Your task to perform on an android device: change the clock display to analog Image 0: 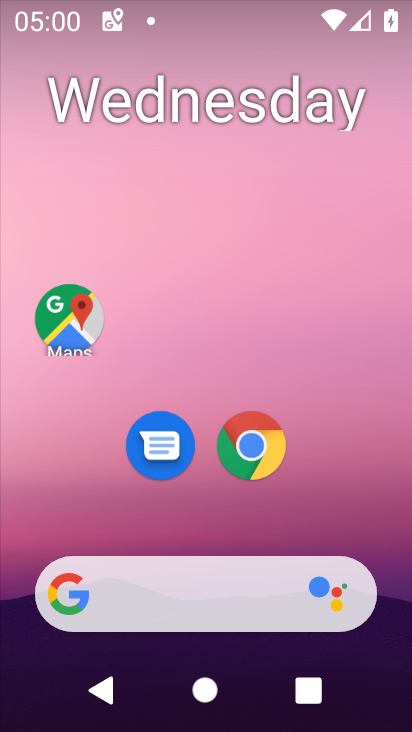
Step 0: drag from (190, 540) to (226, 175)
Your task to perform on an android device: change the clock display to analog Image 1: 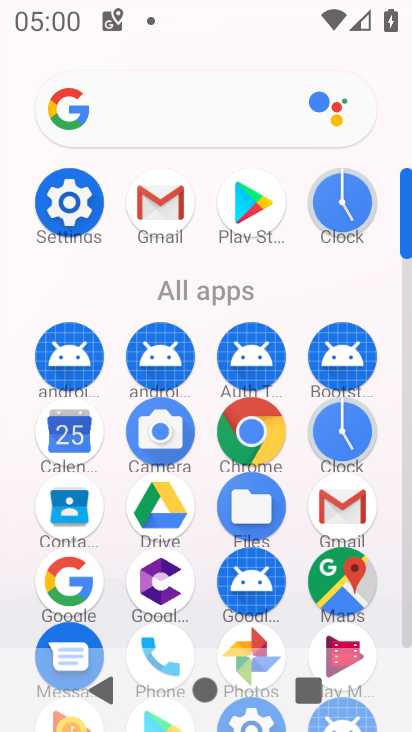
Step 1: click (347, 212)
Your task to perform on an android device: change the clock display to analog Image 2: 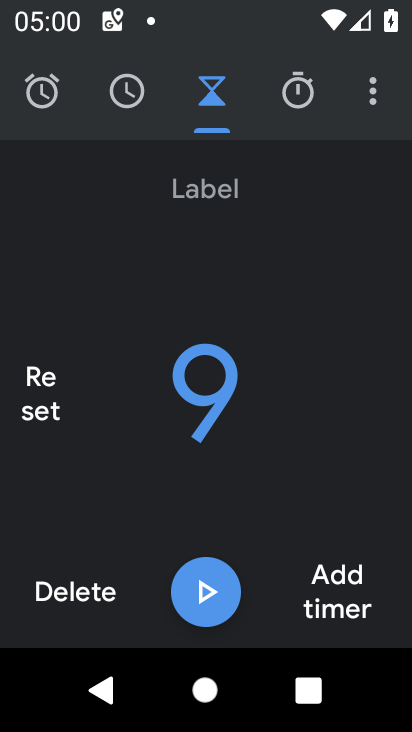
Step 2: click (397, 99)
Your task to perform on an android device: change the clock display to analog Image 3: 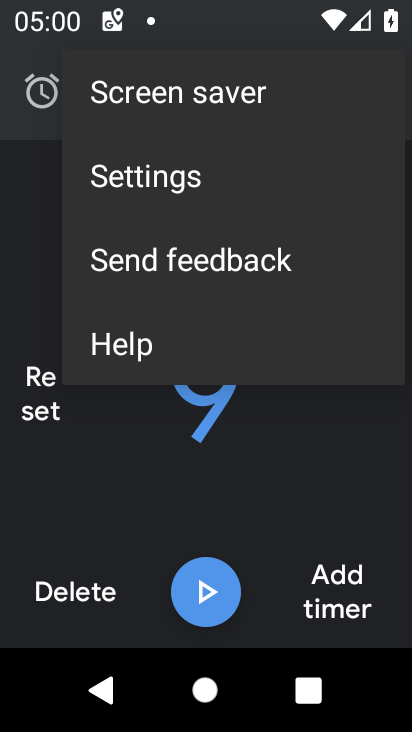
Step 3: click (228, 165)
Your task to perform on an android device: change the clock display to analog Image 4: 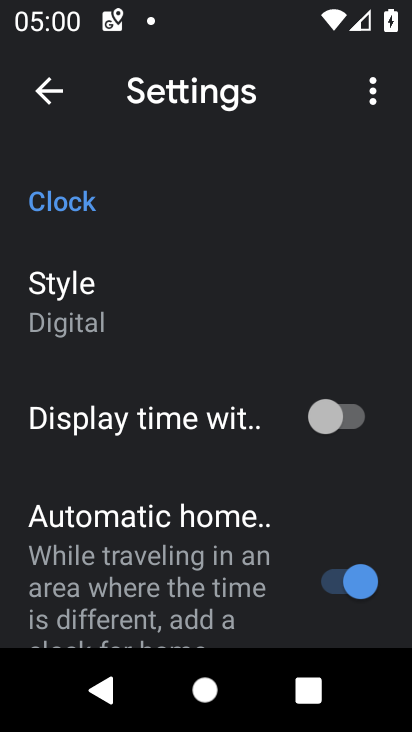
Step 4: click (136, 291)
Your task to perform on an android device: change the clock display to analog Image 5: 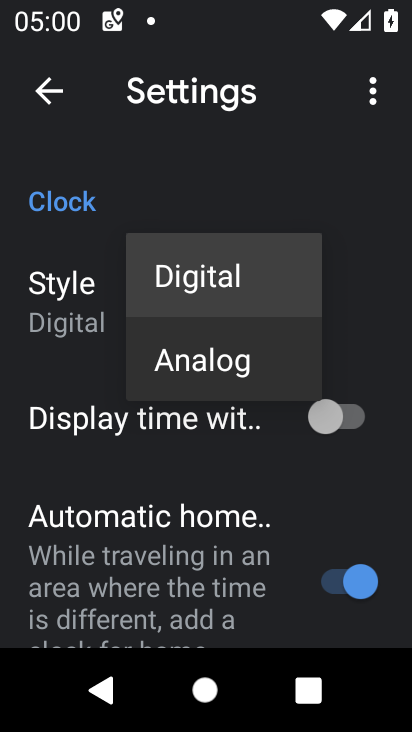
Step 5: click (181, 345)
Your task to perform on an android device: change the clock display to analog Image 6: 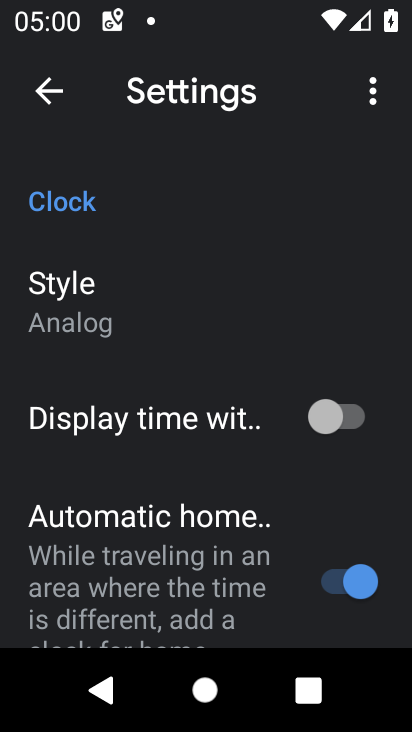
Step 6: task complete